Your task to perform on an android device: View the shopping cart on bestbuy. Search for "usb-a to usb-b" on bestbuy, select the first entry, and add it to the cart. Image 0: 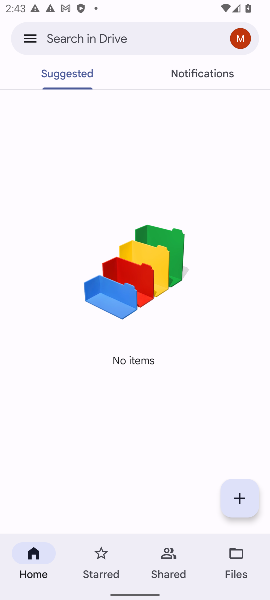
Step 0: press home button
Your task to perform on an android device: View the shopping cart on bestbuy. Search for "usb-a to usb-b" on bestbuy, select the first entry, and add it to the cart. Image 1: 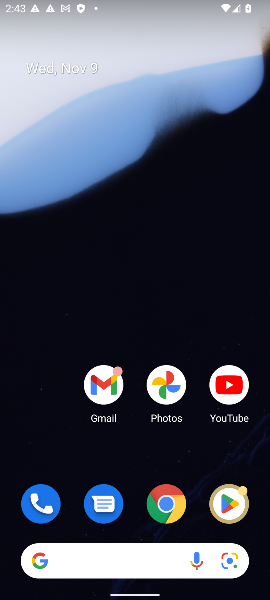
Step 1: click (161, 510)
Your task to perform on an android device: View the shopping cart on bestbuy. Search for "usb-a to usb-b" on bestbuy, select the first entry, and add it to the cart. Image 2: 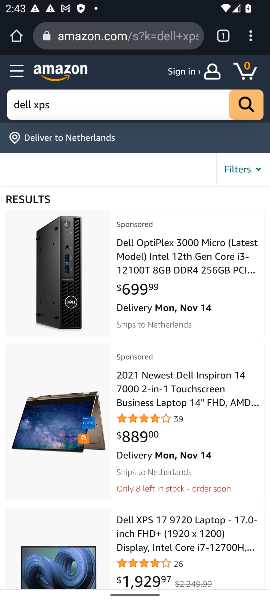
Step 2: click (117, 43)
Your task to perform on an android device: View the shopping cart on bestbuy. Search for "usb-a to usb-b" on bestbuy, select the first entry, and add it to the cart. Image 3: 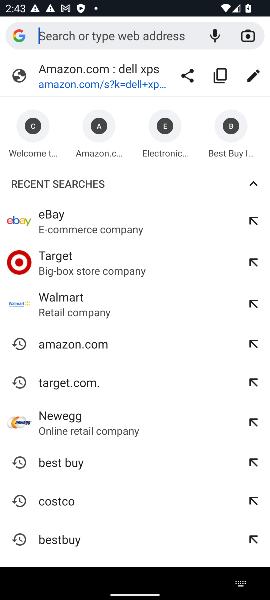
Step 3: click (232, 128)
Your task to perform on an android device: View the shopping cart on bestbuy. Search for "usb-a to usb-b" on bestbuy, select the first entry, and add it to the cart. Image 4: 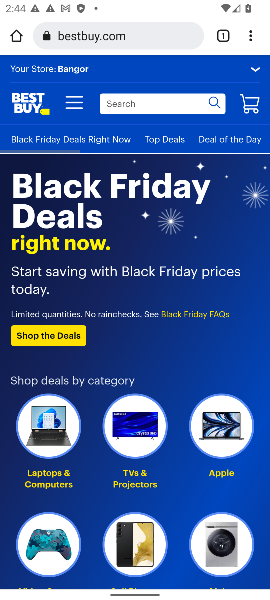
Step 4: click (253, 104)
Your task to perform on an android device: View the shopping cart on bestbuy. Search for "usb-a to usb-b" on bestbuy, select the first entry, and add it to the cart. Image 5: 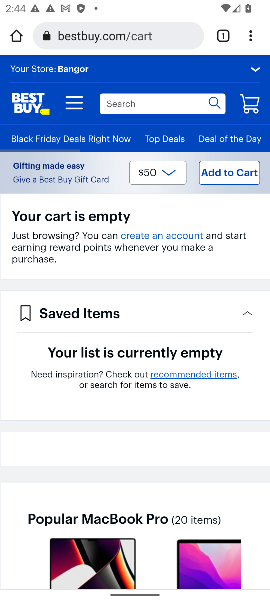
Step 5: click (128, 102)
Your task to perform on an android device: View the shopping cart on bestbuy. Search for "usb-a to usb-b" on bestbuy, select the first entry, and add it to the cart. Image 6: 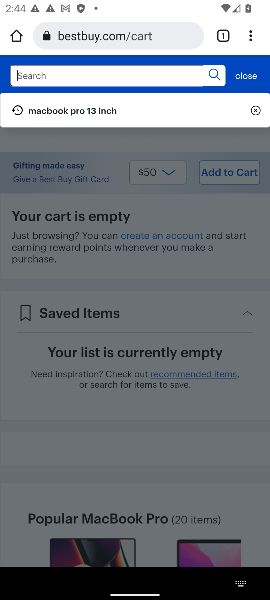
Step 6: type "usb-a to usb-b"
Your task to perform on an android device: View the shopping cart on bestbuy. Search for "usb-a to usb-b" on bestbuy, select the first entry, and add it to the cart. Image 7: 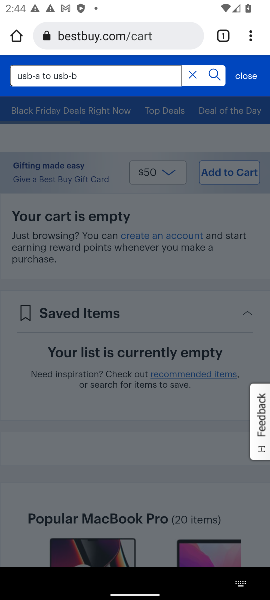
Step 7: click (213, 75)
Your task to perform on an android device: View the shopping cart on bestbuy. Search for "usb-a to usb-b" on bestbuy, select the first entry, and add it to the cart. Image 8: 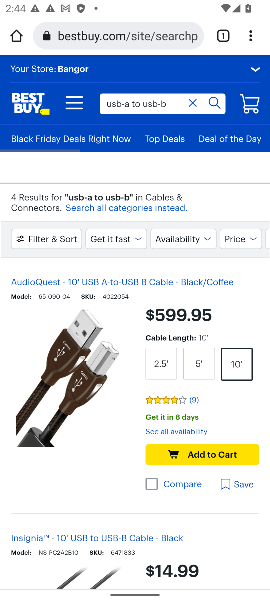
Step 8: click (240, 453)
Your task to perform on an android device: View the shopping cart on bestbuy. Search for "usb-a to usb-b" on bestbuy, select the first entry, and add it to the cart. Image 9: 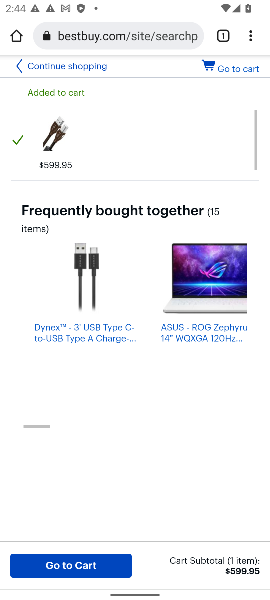
Step 9: task complete